Your task to perform on an android device: Open Reddit.com Image 0: 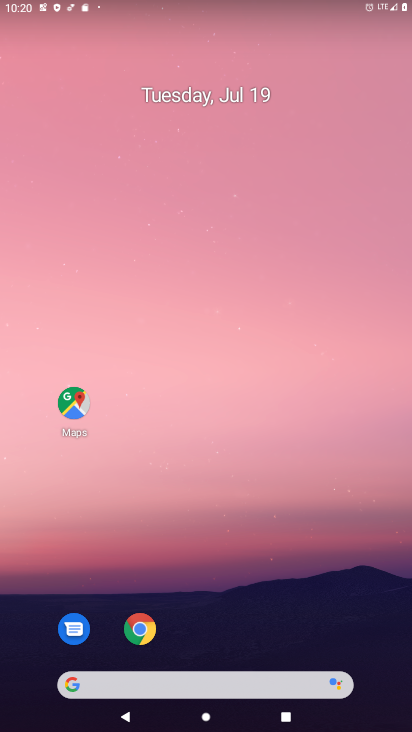
Step 0: click (148, 637)
Your task to perform on an android device: Open Reddit.com Image 1: 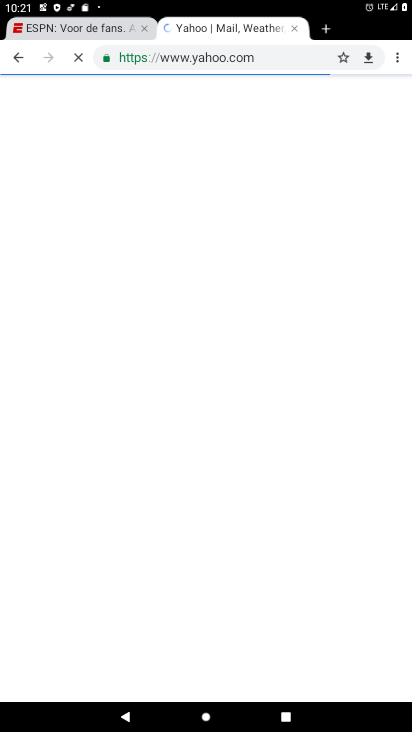
Step 1: click (208, 55)
Your task to perform on an android device: Open Reddit.com Image 2: 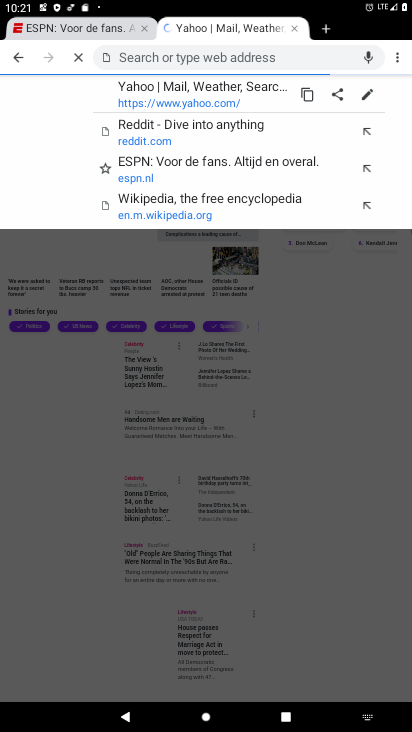
Step 2: type "Reddit.com"
Your task to perform on an android device: Open Reddit.com Image 3: 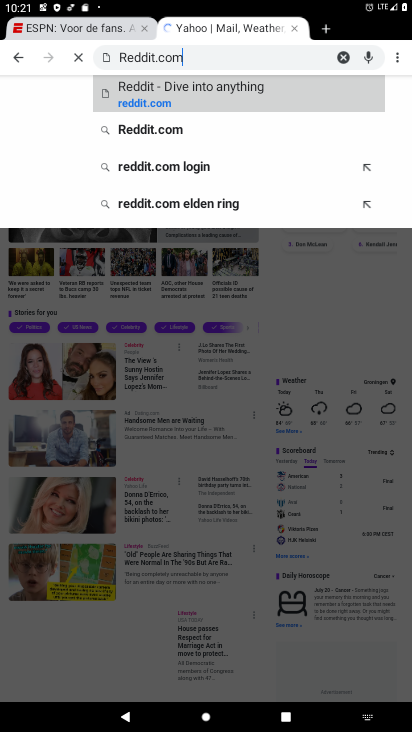
Step 3: click (193, 100)
Your task to perform on an android device: Open Reddit.com Image 4: 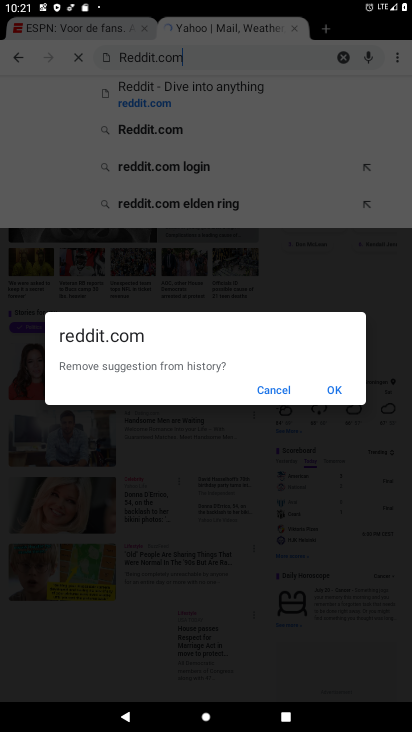
Step 4: click (271, 387)
Your task to perform on an android device: Open Reddit.com Image 5: 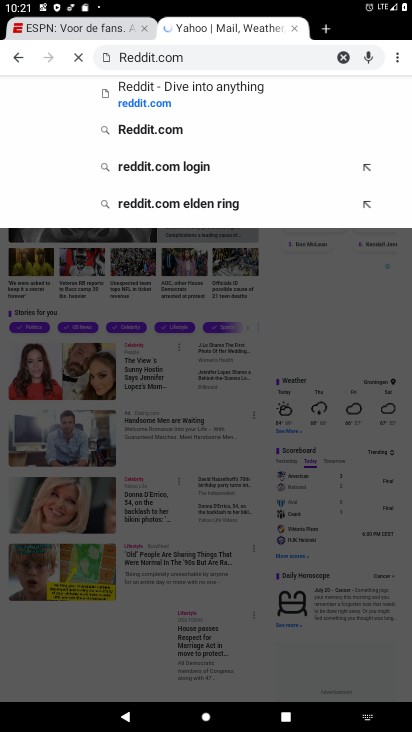
Step 5: click (166, 106)
Your task to perform on an android device: Open Reddit.com Image 6: 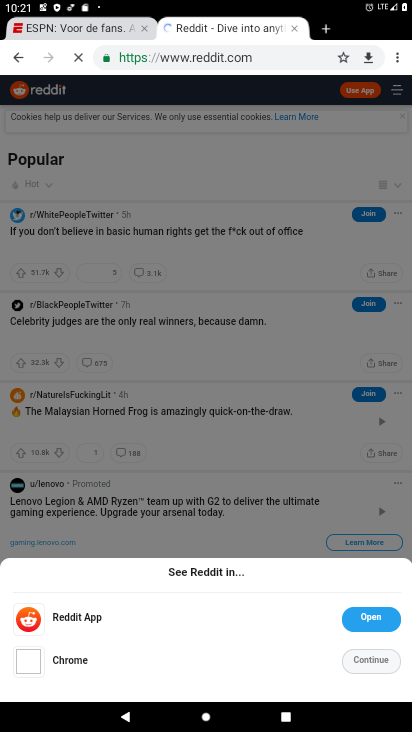
Step 6: task complete